Your task to perform on an android device: What's the weather going to be tomorrow? Image 0: 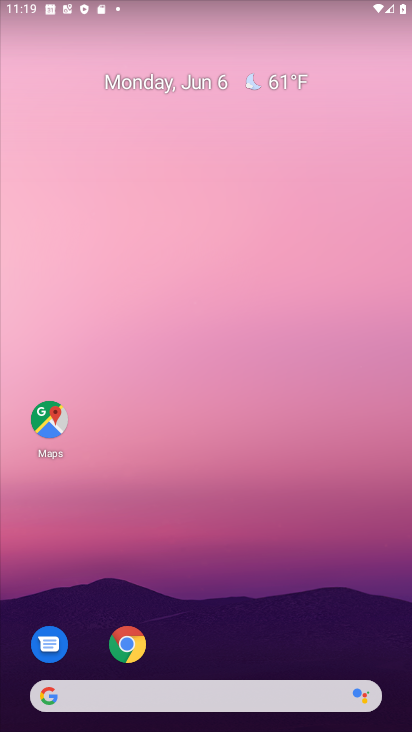
Step 0: drag from (200, 694) to (168, 197)
Your task to perform on an android device: What's the weather going to be tomorrow? Image 1: 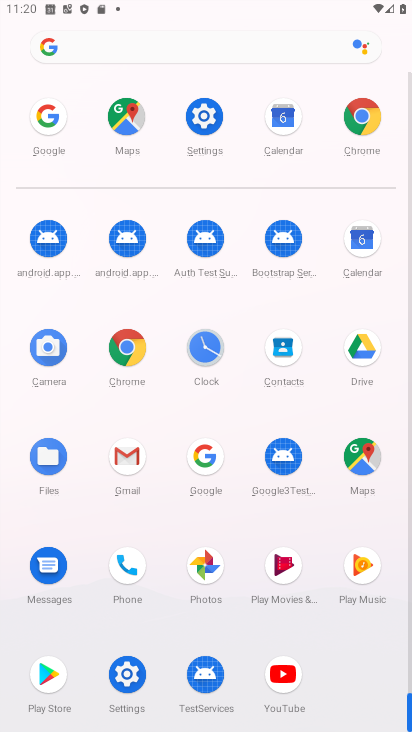
Step 1: drag from (235, 495) to (226, 388)
Your task to perform on an android device: What's the weather going to be tomorrow? Image 2: 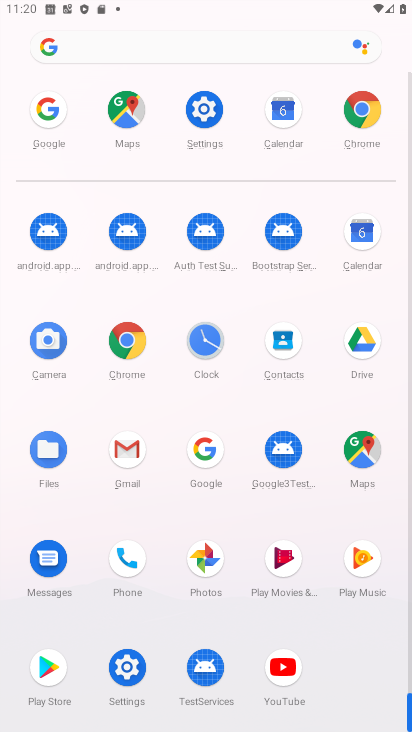
Step 2: click (206, 450)
Your task to perform on an android device: What's the weather going to be tomorrow? Image 3: 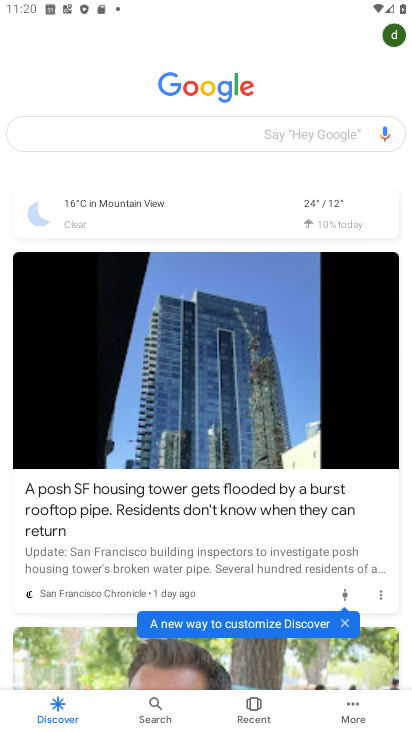
Step 3: click (142, 141)
Your task to perform on an android device: What's the weather going to be tomorrow? Image 4: 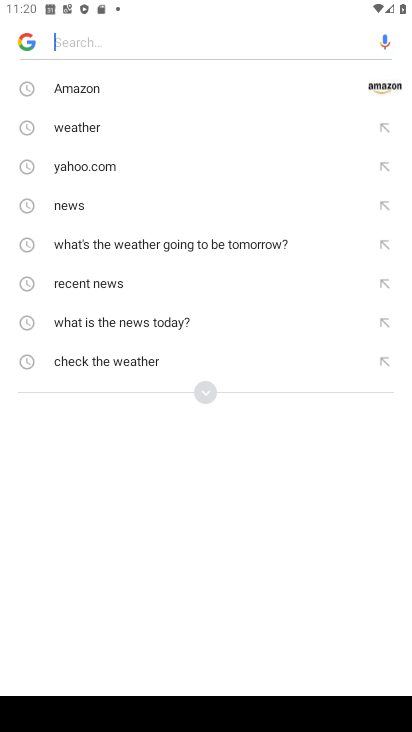
Step 4: click (103, 129)
Your task to perform on an android device: What's the weather going to be tomorrow? Image 5: 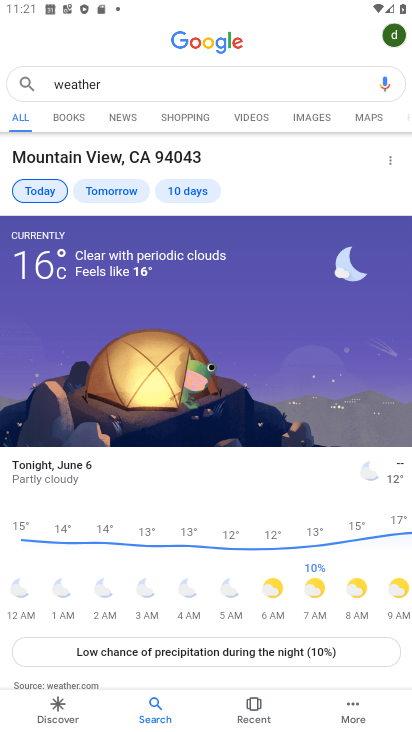
Step 5: task complete